Your task to perform on an android device: Go to battery settings Image 0: 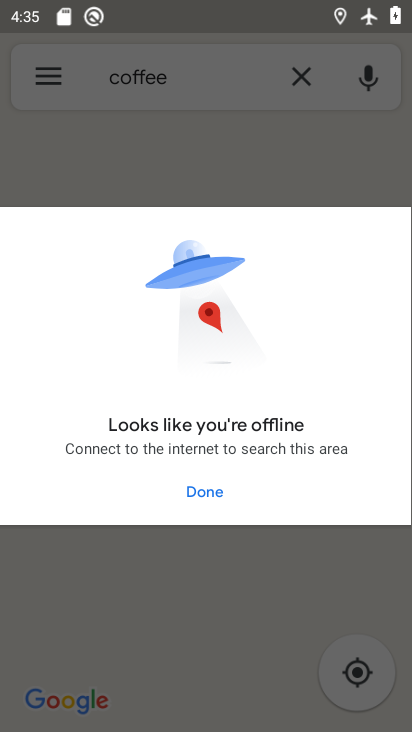
Step 0: press home button
Your task to perform on an android device: Go to battery settings Image 1: 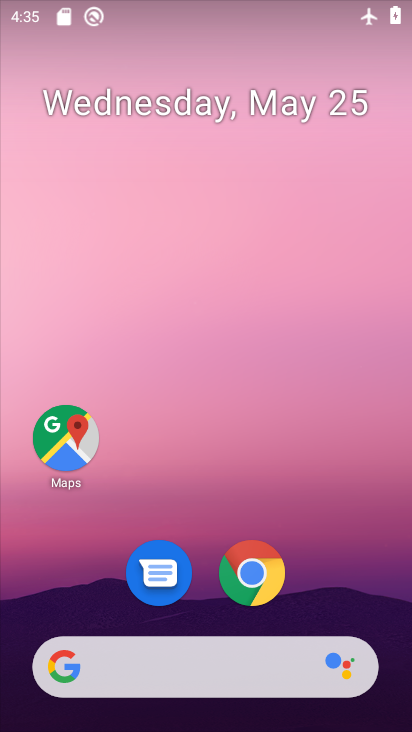
Step 1: drag from (228, 694) to (224, 61)
Your task to perform on an android device: Go to battery settings Image 2: 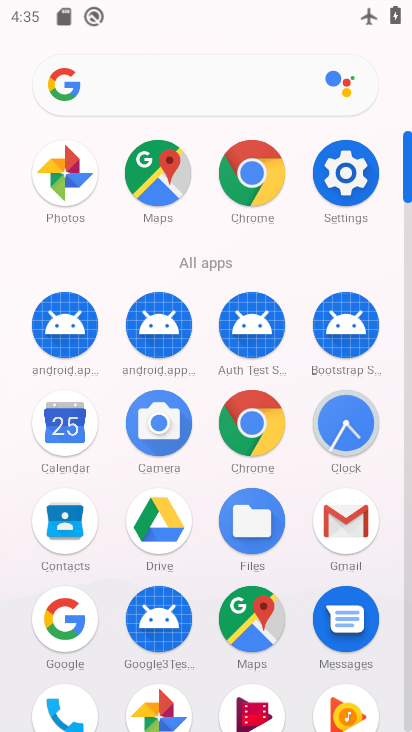
Step 2: click (343, 172)
Your task to perform on an android device: Go to battery settings Image 3: 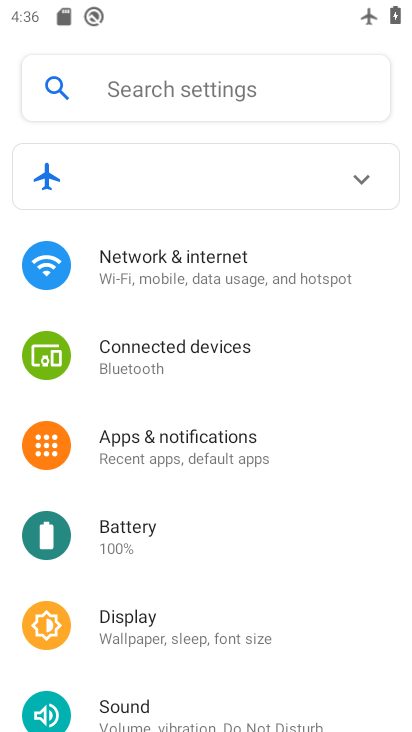
Step 3: click (121, 521)
Your task to perform on an android device: Go to battery settings Image 4: 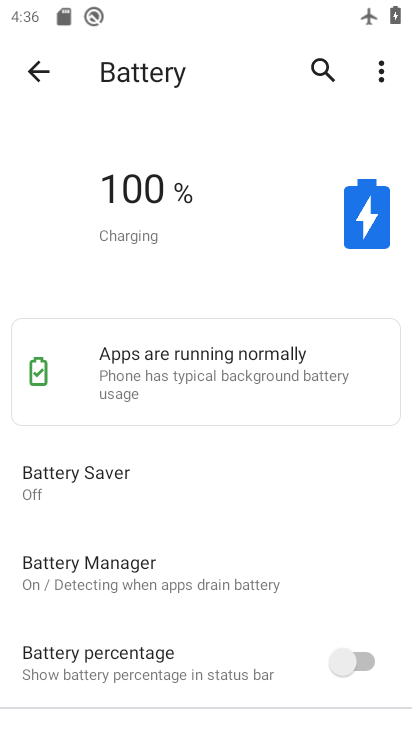
Step 4: task complete